Your task to perform on an android device: turn on improve location accuracy Image 0: 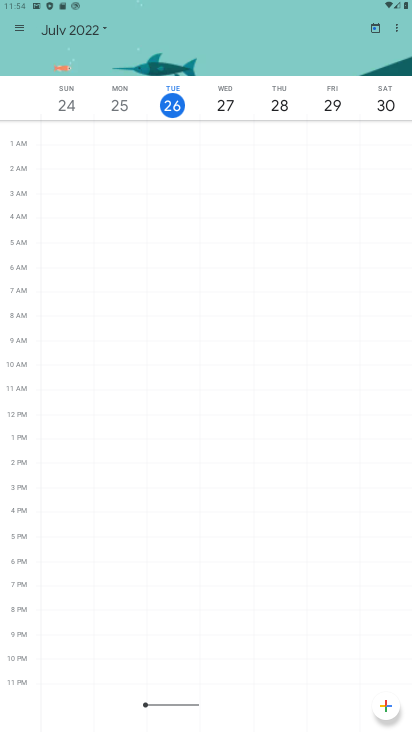
Step 0: press home button
Your task to perform on an android device: turn on improve location accuracy Image 1: 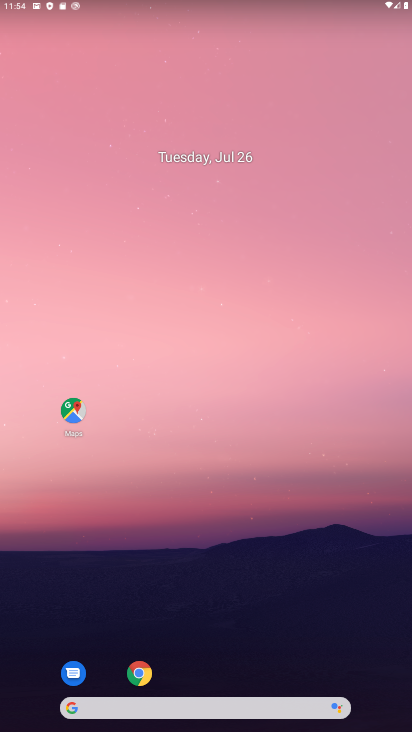
Step 1: drag from (217, 658) to (210, 255)
Your task to perform on an android device: turn on improve location accuracy Image 2: 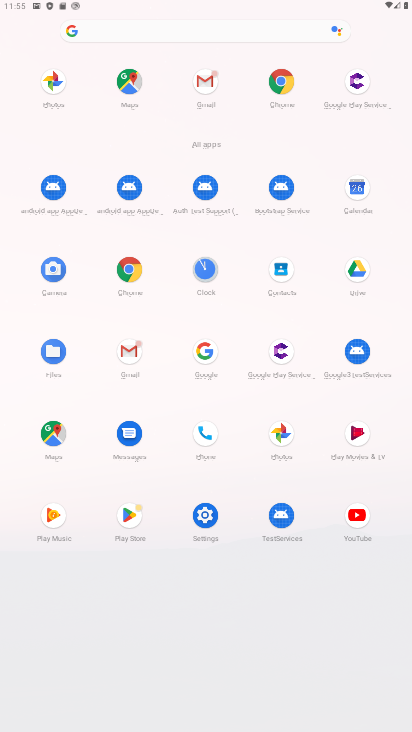
Step 2: click (203, 514)
Your task to perform on an android device: turn on improve location accuracy Image 3: 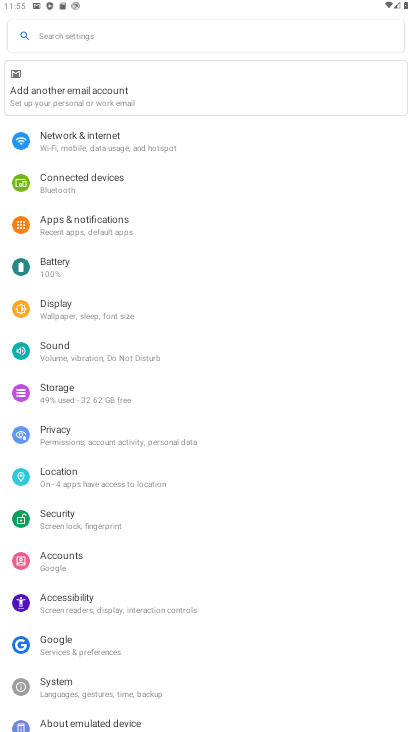
Step 3: click (117, 472)
Your task to perform on an android device: turn on improve location accuracy Image 4: 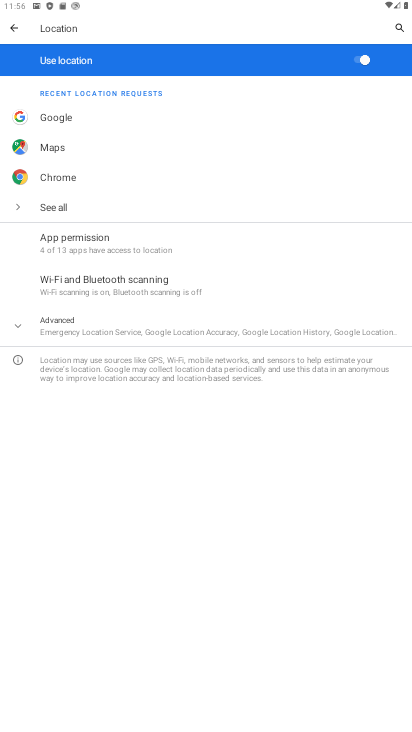
Step 4: click (125, 319)
Your task to perform on an android device: turn on improve location accuracy Image 5: 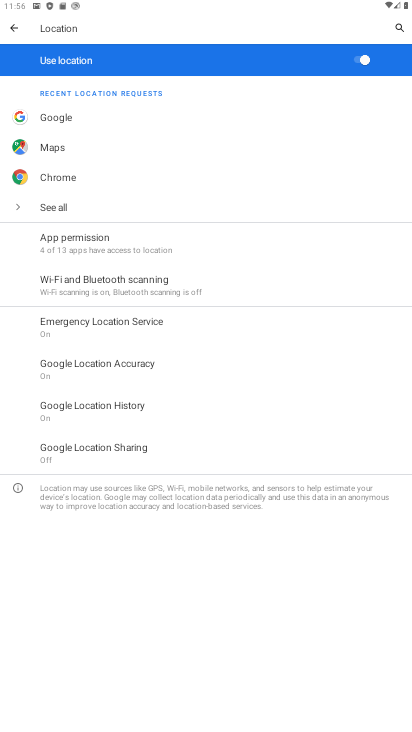
Step 5: click (130, 367)
Your task to perform on an android device: turn on improve location accuracy Image 6: 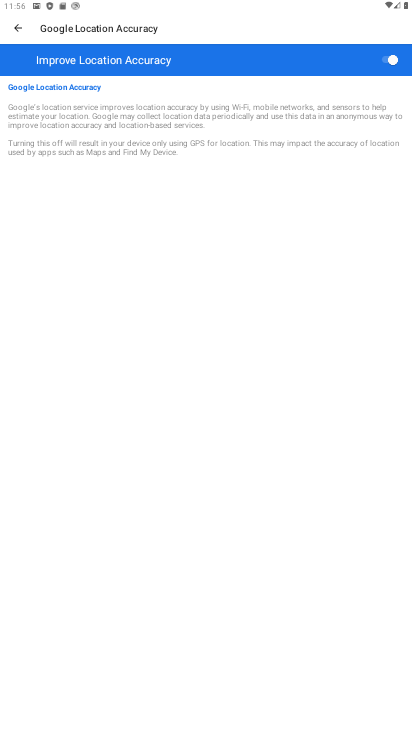
Step 6: task complete